Your task to perform on an android device: delete browsing data in the chrome app Image 0: 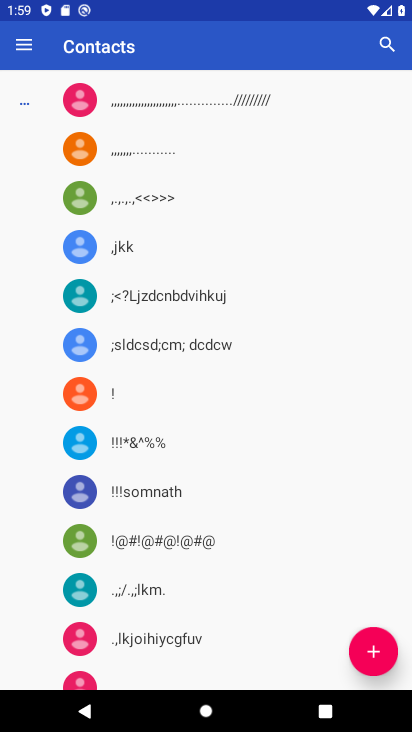
Step 0: press home button
Your task to perform on an android device: delete browsing data in the chrome app Image 1: 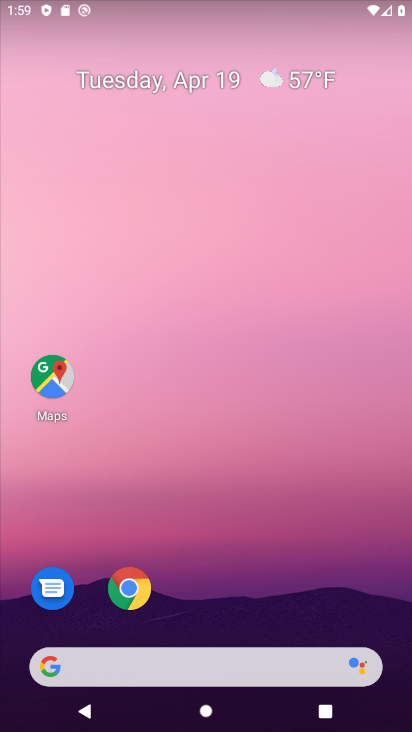
Step 1: click (134, 589)
Your task to perform on an android device: delete browsing data in the chrome app Image 2: 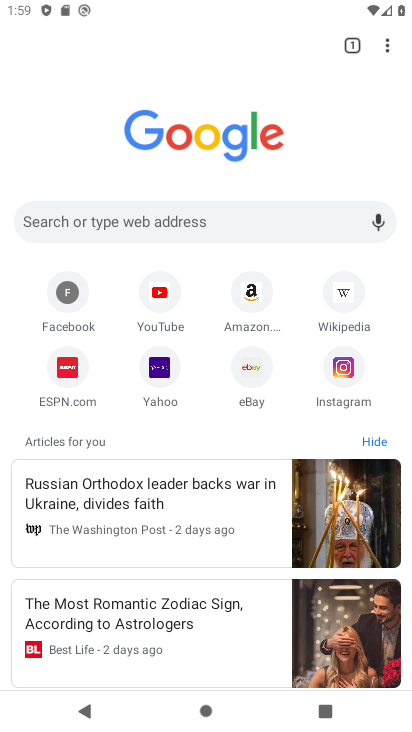
Step 2: click (389, 37)
Your task to perform on an android device: delete browsing data in the chrome app Image 3: 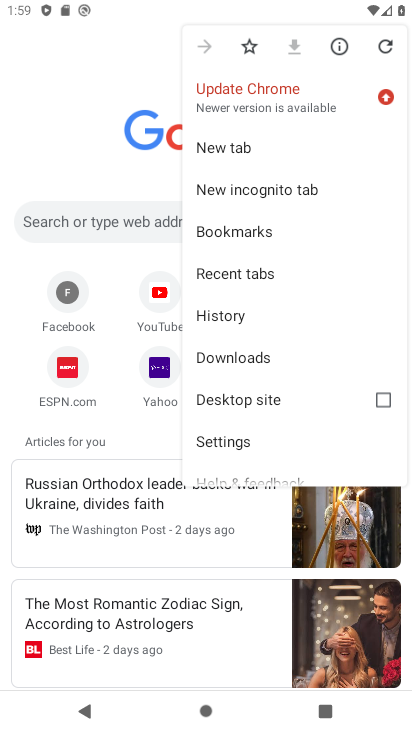
Step 3: click (247, 315)
Your task to perform on an android device: delete browsing data in the chrome app Image 4: 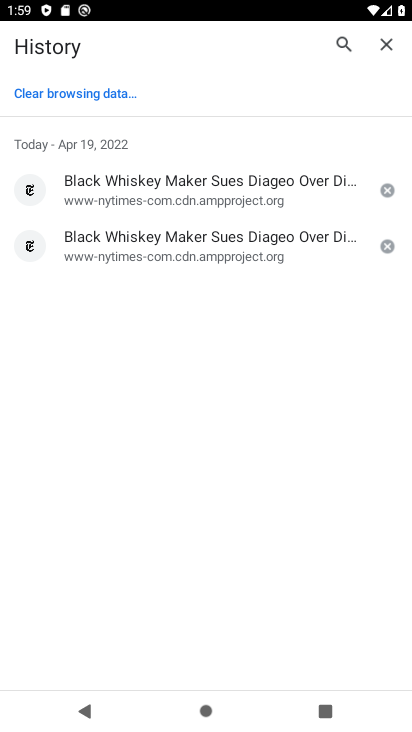
Step 4: click (111, 95)
Your task to perform on an android device: delete browsing data in the chrome app Image 5: 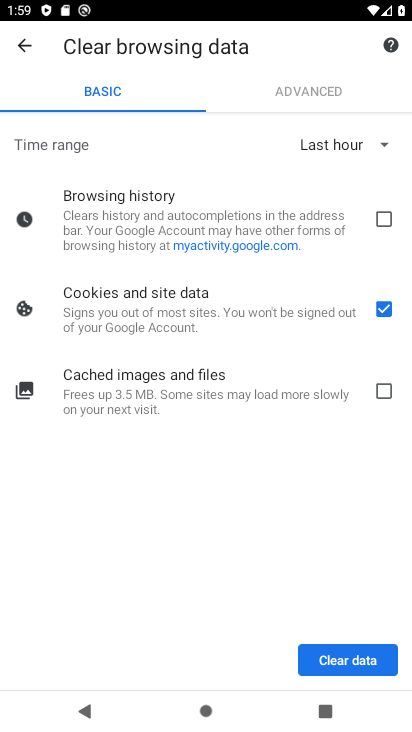
Step 5: click (382, 213)
Your task to perform on an android device: delete browsing data in the chrome app Image 6: 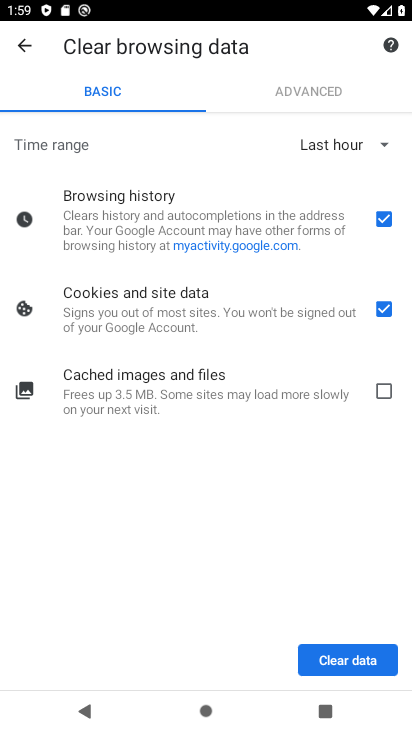
Step 6: click (381, 388)
Your task to perform on an android device: delete browsing data in the chrome app Image 7: 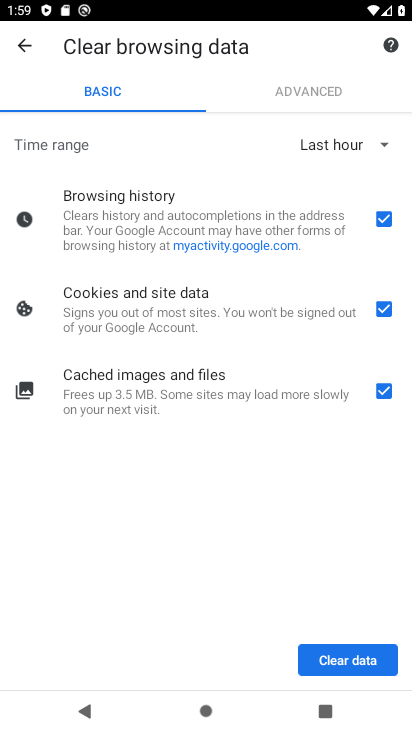
Step 7: click (347, 660)
Your task to perform on an android device: delete browsing data in the chrome app Image 8: 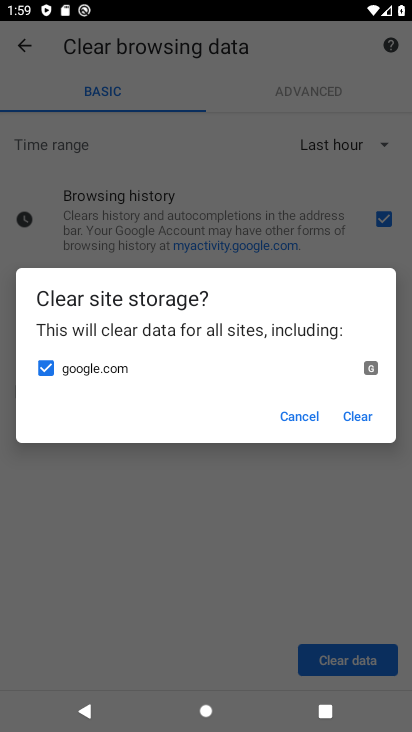
Step 8: click (356, 410)
Your task to perform on an android device: delete browsing data in the chrome app Image 9: 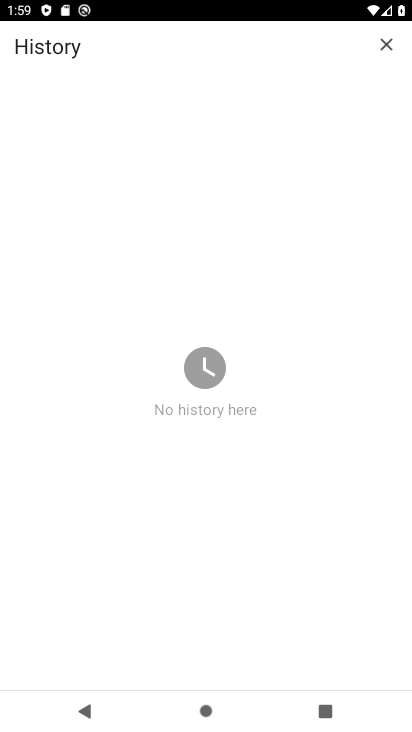
Step 9: task complete